Your task to perform on an android device: refresh tabs in the chrome app Image 0: 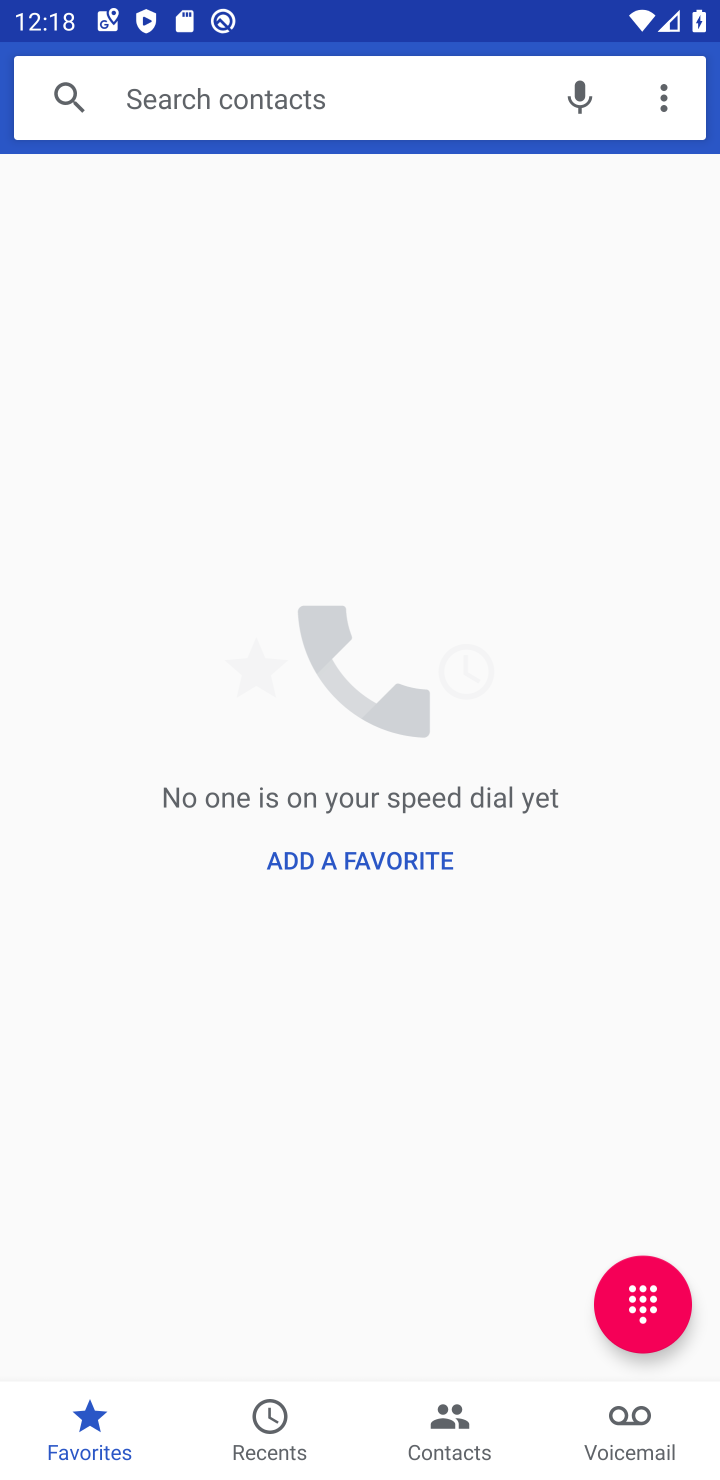
Step 0: drag from (688, 1307) to (282, 75)
Your task to perform on an android device: refresh tabs in the chrome app Image 1: 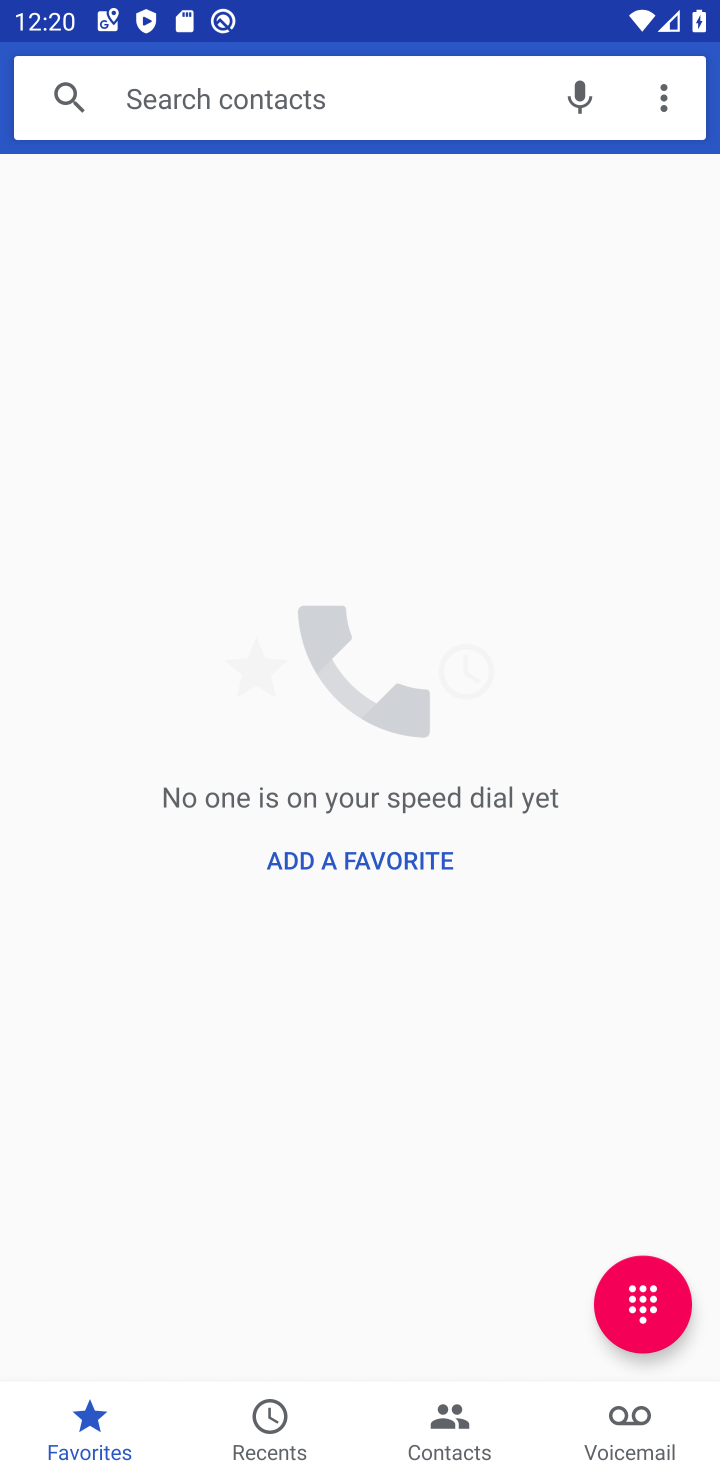
Step 1: press home button
Your task to perform on an android device: refresh tabs in the chrome app Image 2: 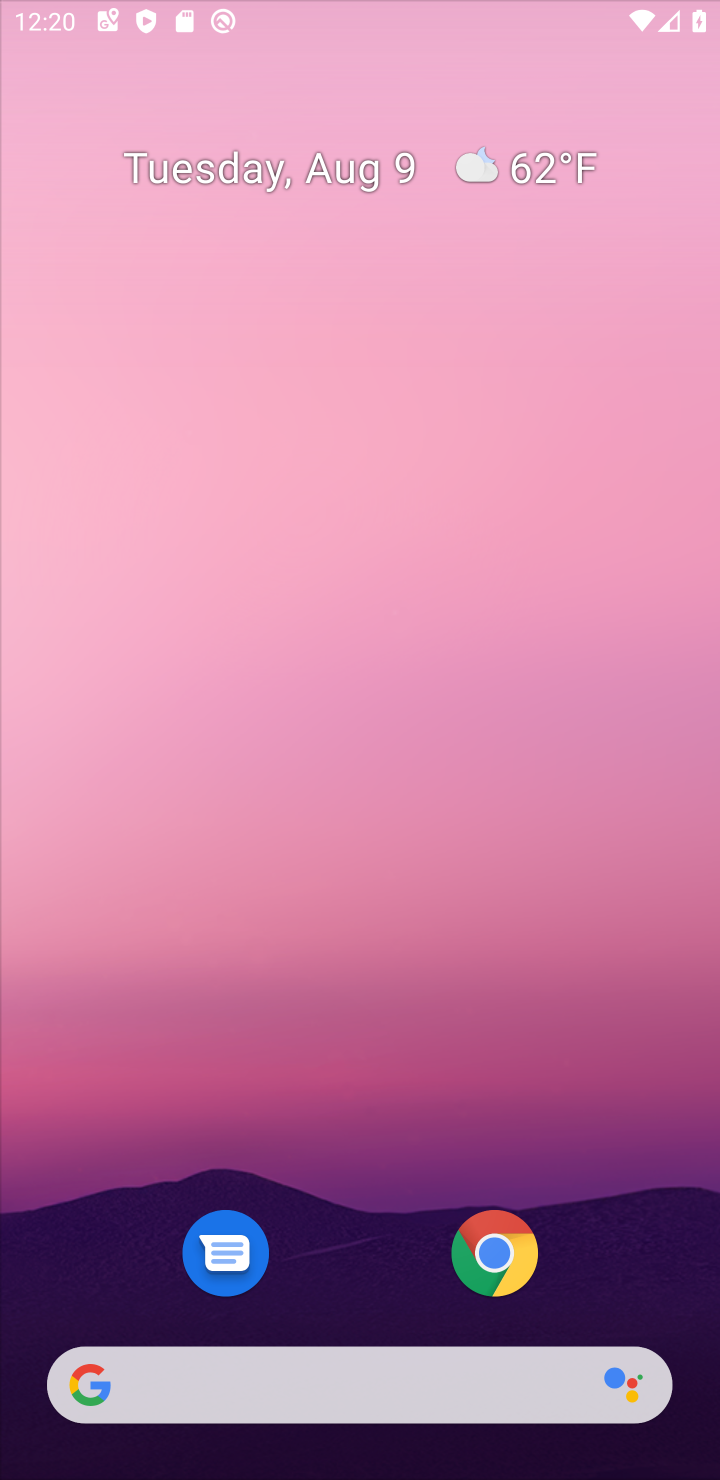
Step 2: drag from (648, 1169) to (209, 192)
Your task to perform on an android device: refresh tabs in the chrome app Image 3: 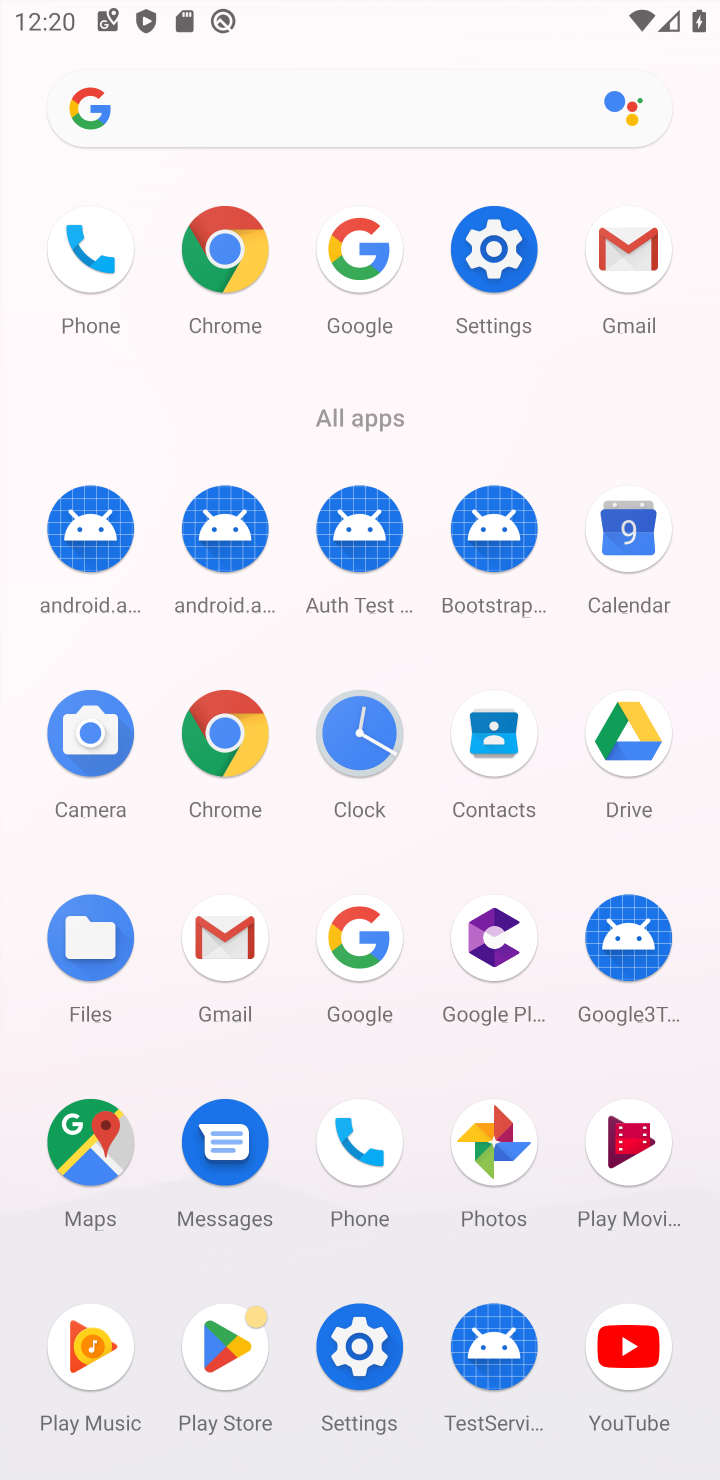
Step 3: click (219, 258)
Your task to perform on an android device: refresh tabs in the chrome app Image 4: 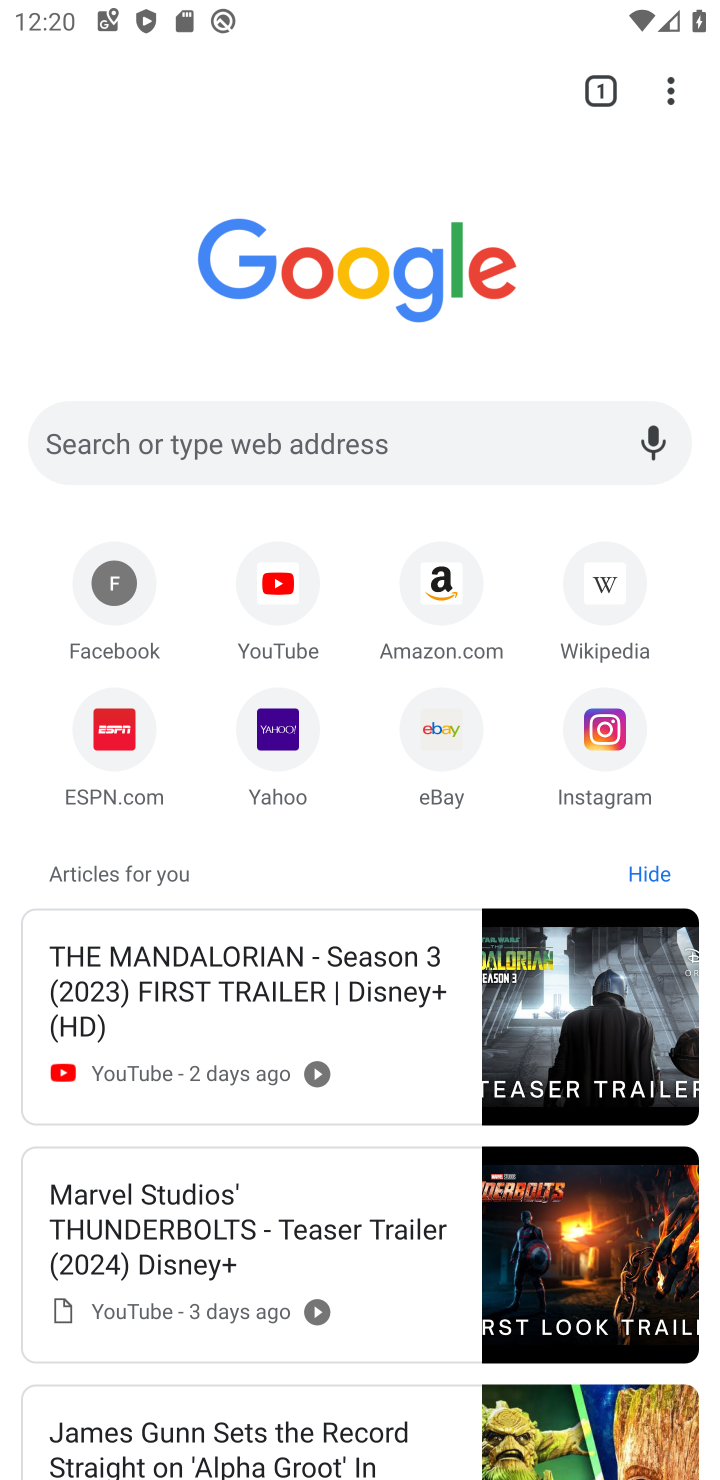
Step 4: click (667, 81)
Your task to perform on an android device: refresh tabs in the chrome app Image 5: 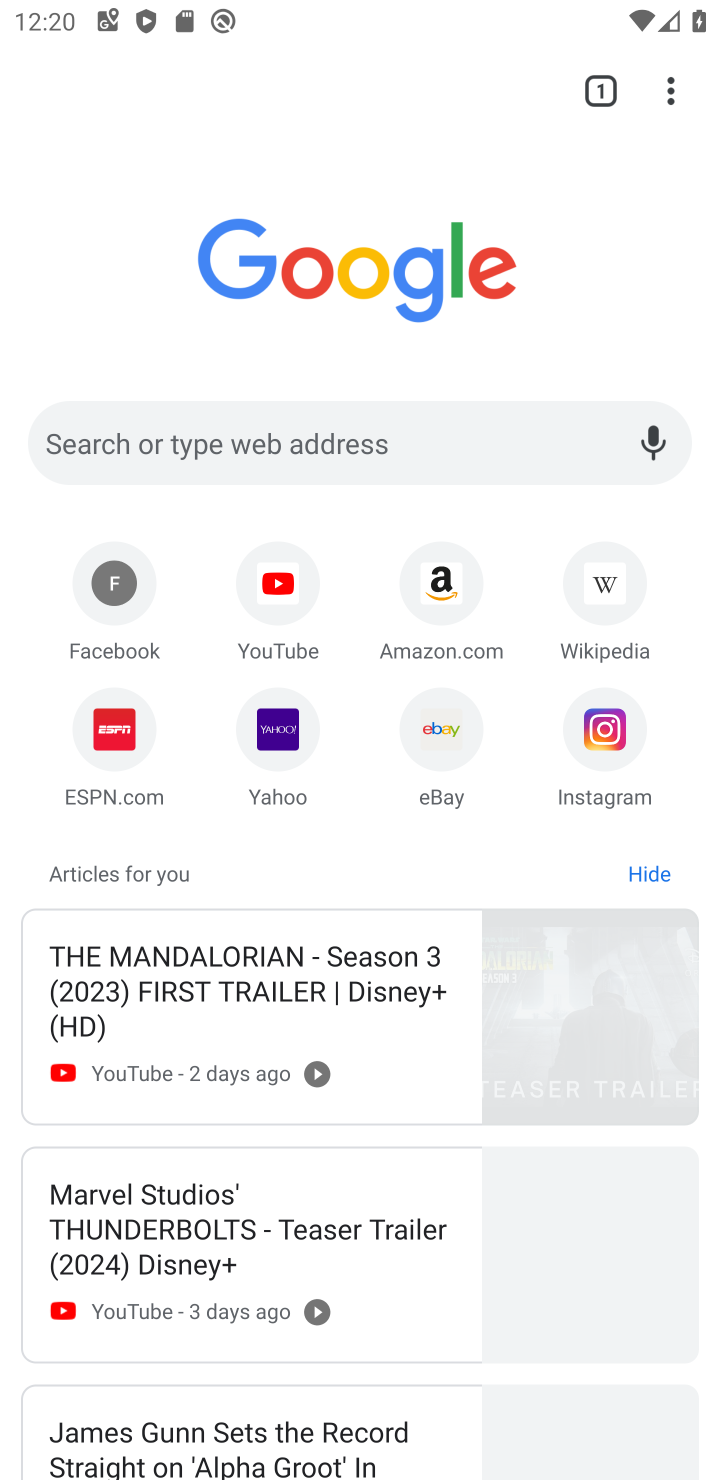
Step 5: click (667, 81)
Your task to perform on an android device: refresh tabs in the chrome app Image 6: 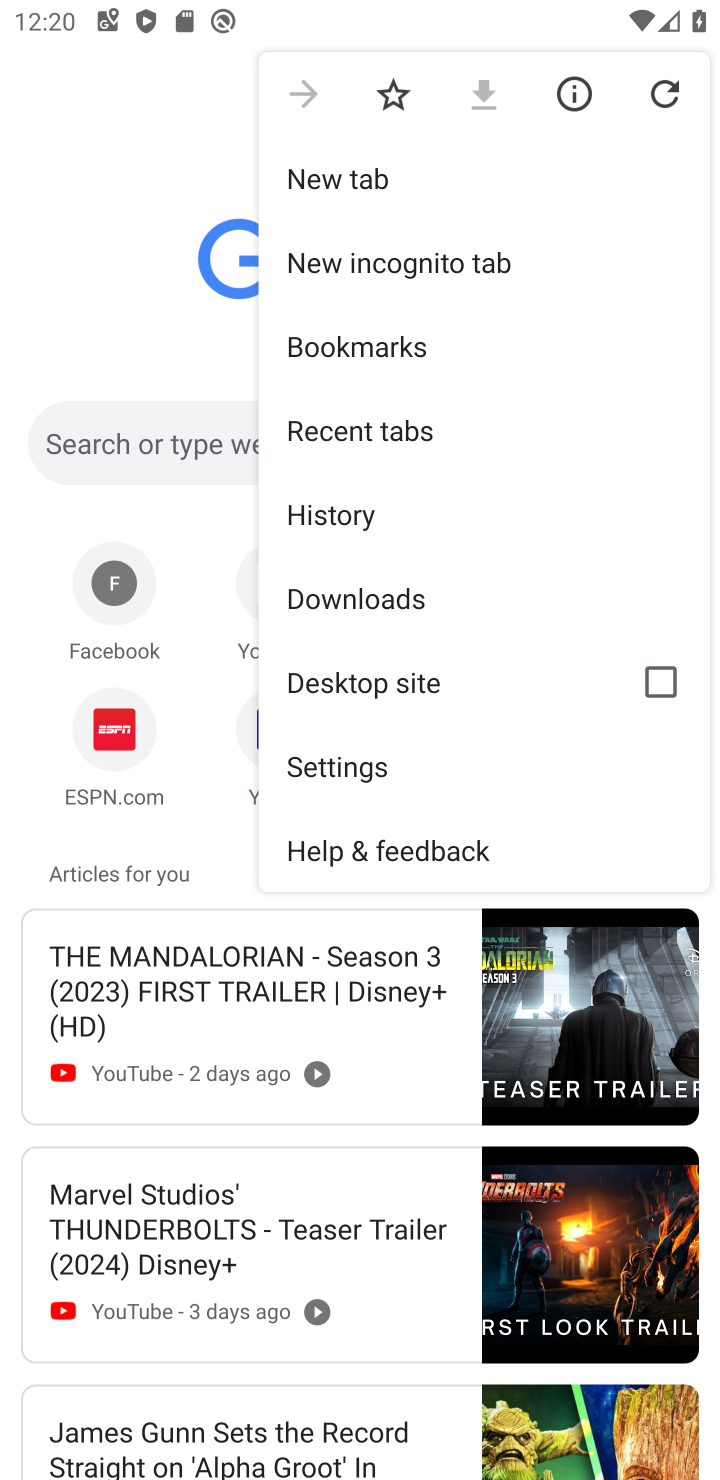
Step 6: click (667, 81)
Your task to perform on an android device: refresh tabs in the chrome app Image 7: 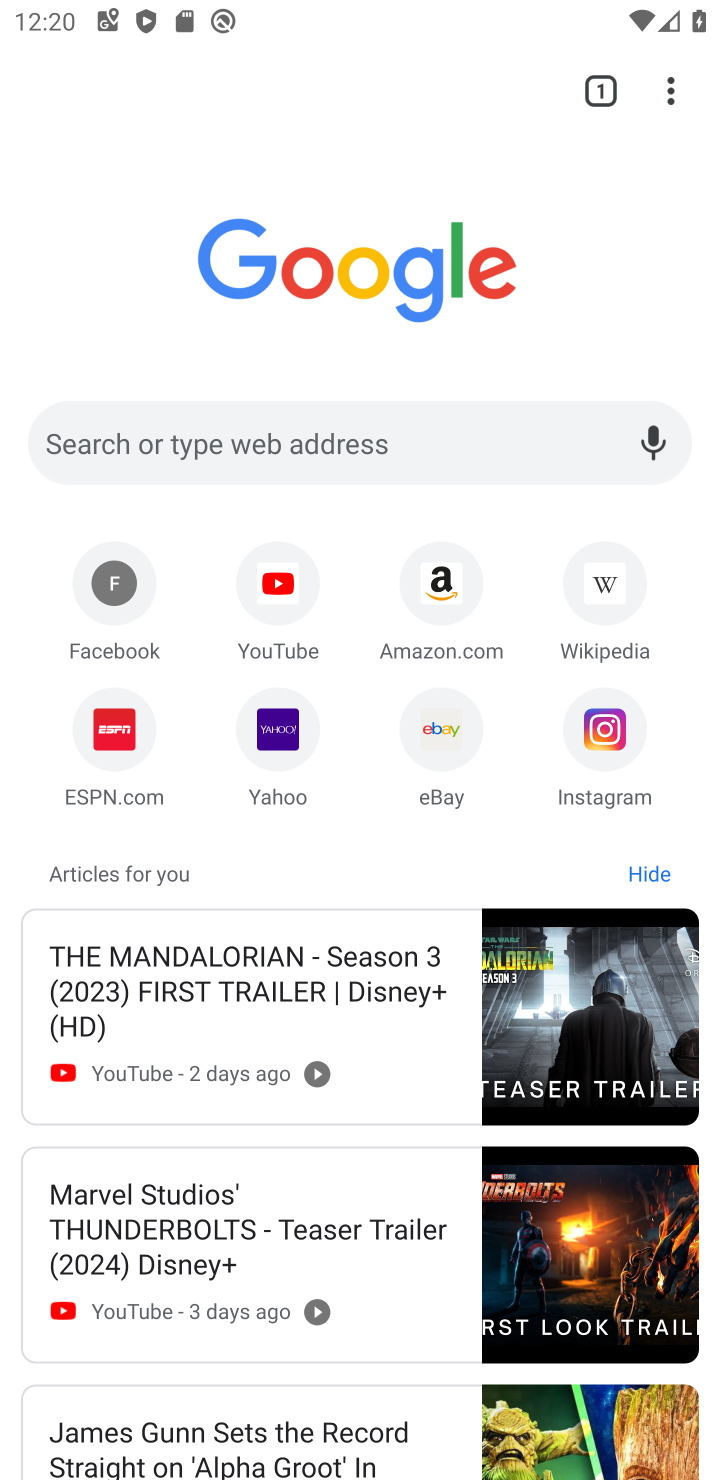
Step 7: task complete